Your task to perform on an android device: check google app version Image 0: 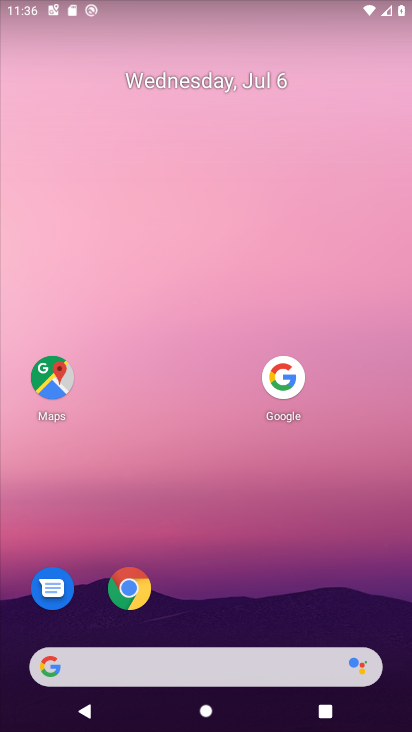
Step 0: click (284, 372)
Your task to perform on an android device: check google app version Image 1: 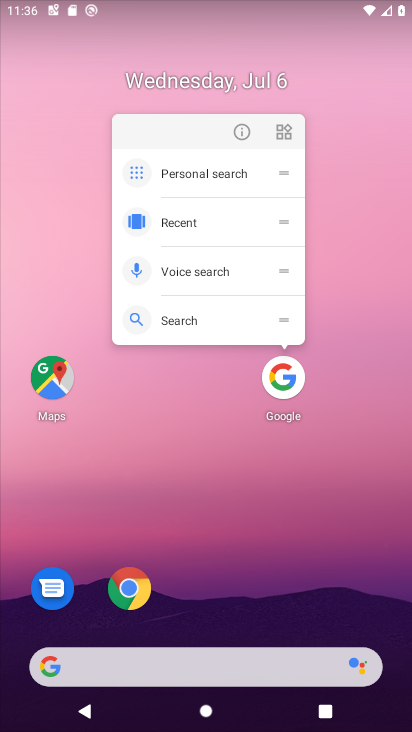
Step 1: click (242, 133)
Your task to perform on an android device: check google app version Image 2: 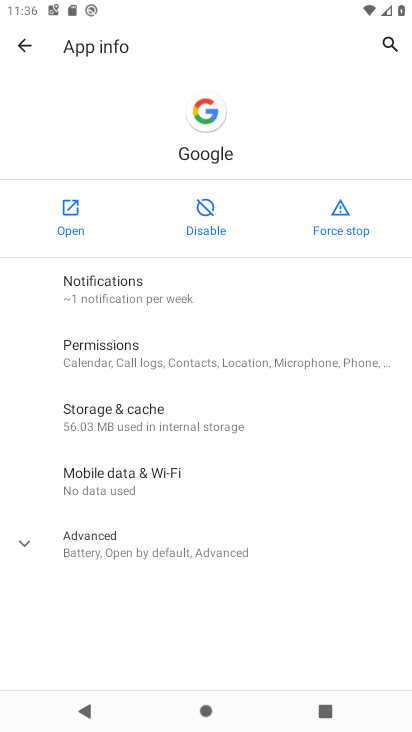
Step 2: click (124, 543)
Your task to perform on an android device: check google app version Image 3: 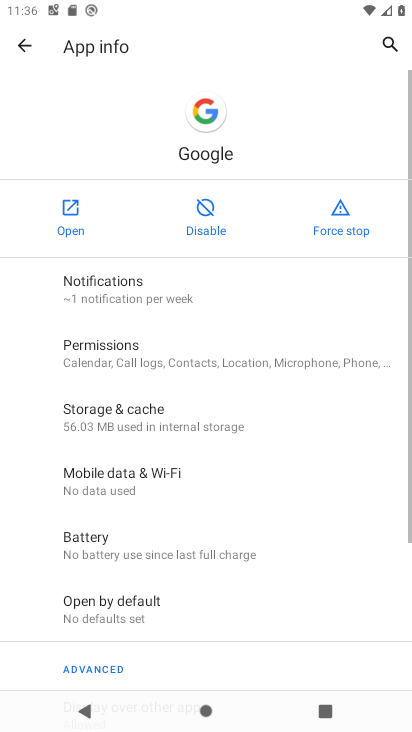
Step 3: task complete